Your task to perform on an android device: Open the map Image 0: 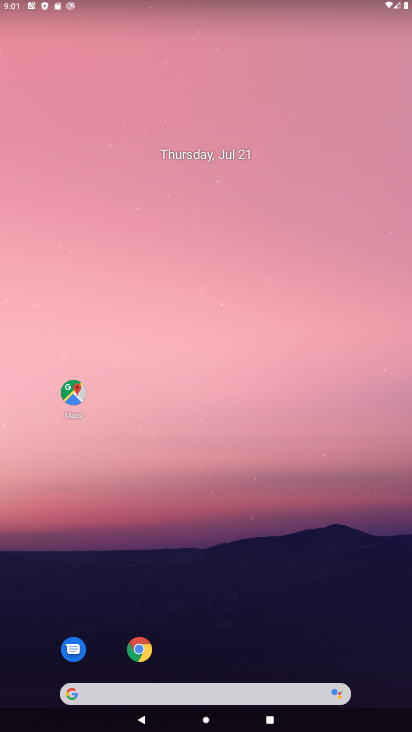
Step 0: click (77, 398)
Your task to perform on an android device: Open the map Image 1: 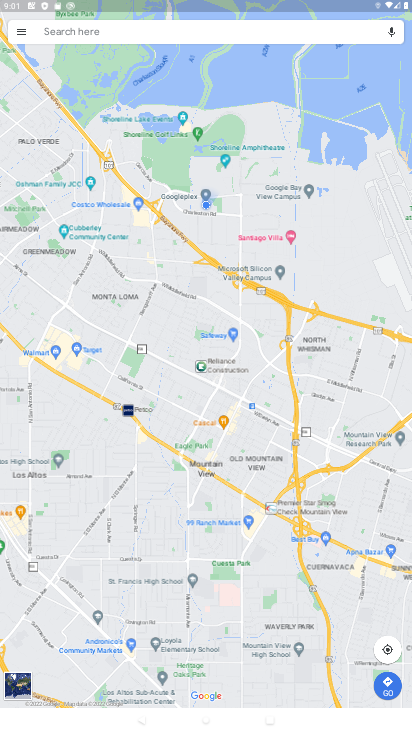
Step 1: task complete